Your task to perform on an android device: Open the stopwatch Image 0: 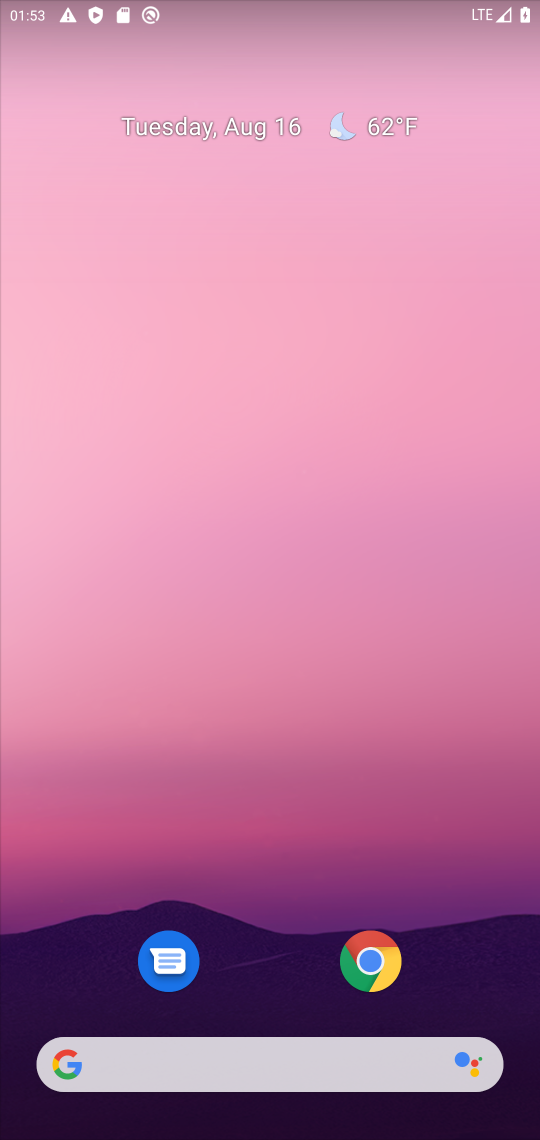
Step 0: press home button
Your task to perform on an android device: Open the stopwatch Image 1: 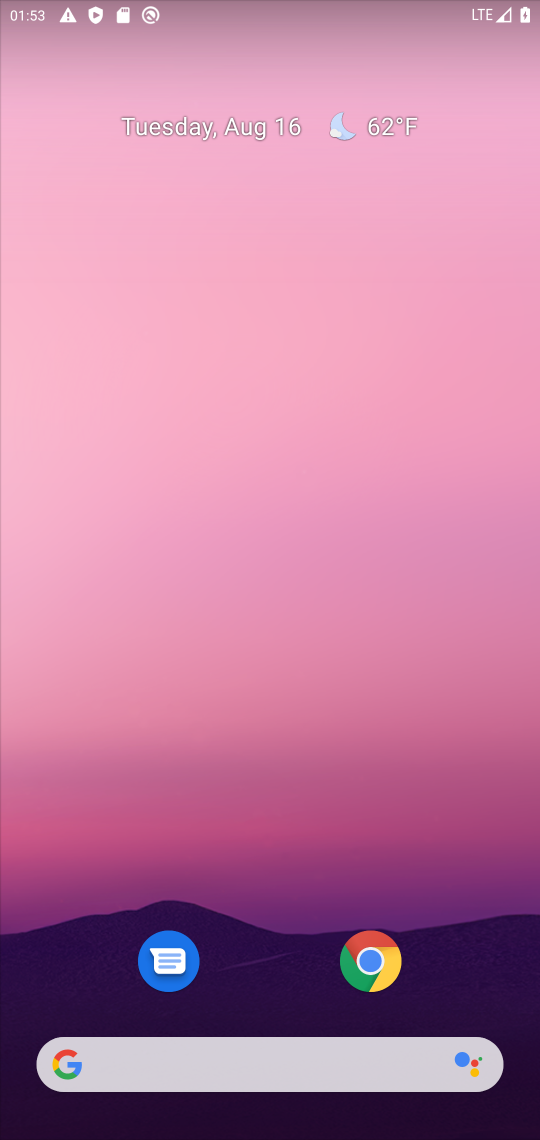
Step 1: drag from (282, 934) to (266, 88)
Your task to perform on an android device: Open the stopwatch Image 2: 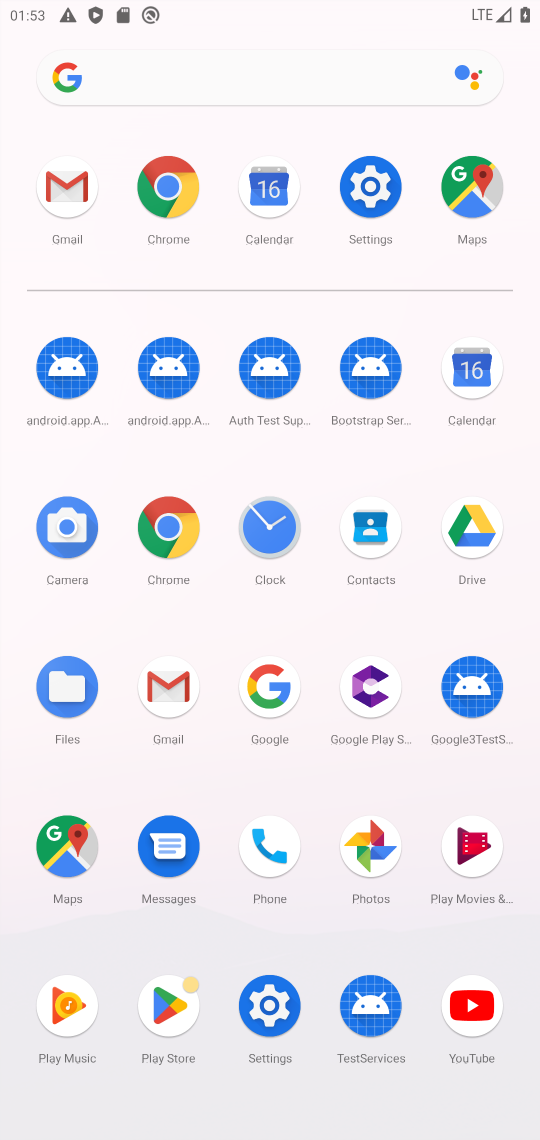
Step 2: click (257, 1013)
Your task to perform on an android device: Open the stopwatch Image 3: 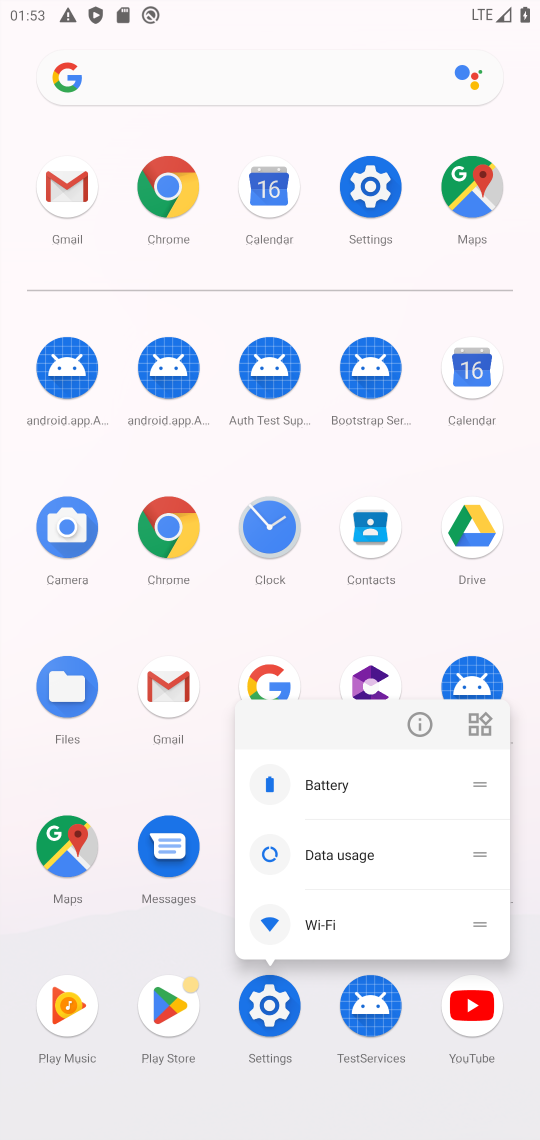
Step 3: click (257, 1013)
Your task to perform on an android device: Open the stopwatch Image 4: 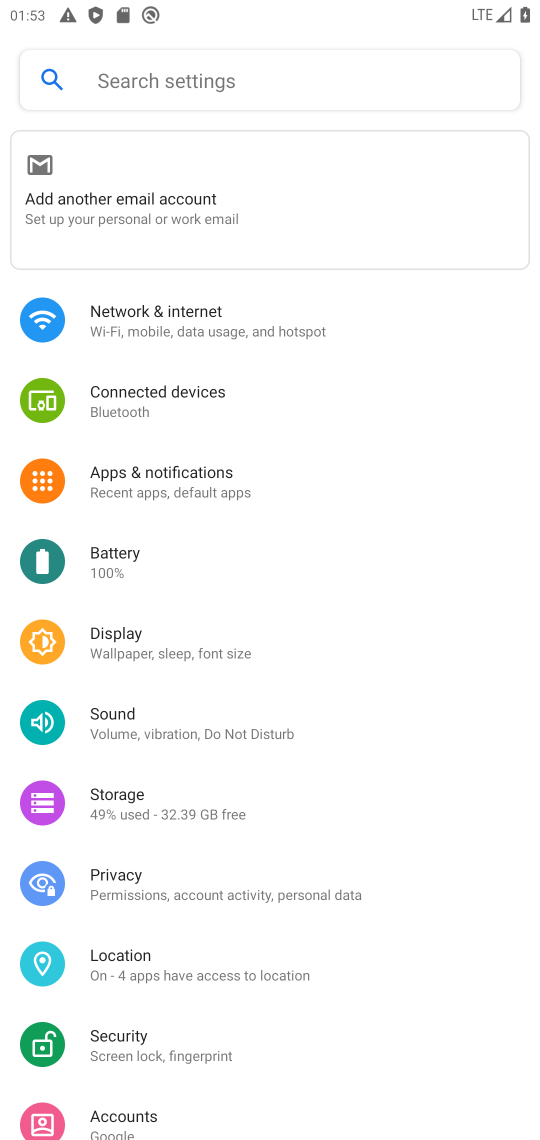
Step 4: drag from (169, 892) to (203, 316)
Your task to perform on an android device: Open the stopwatch Image 5: 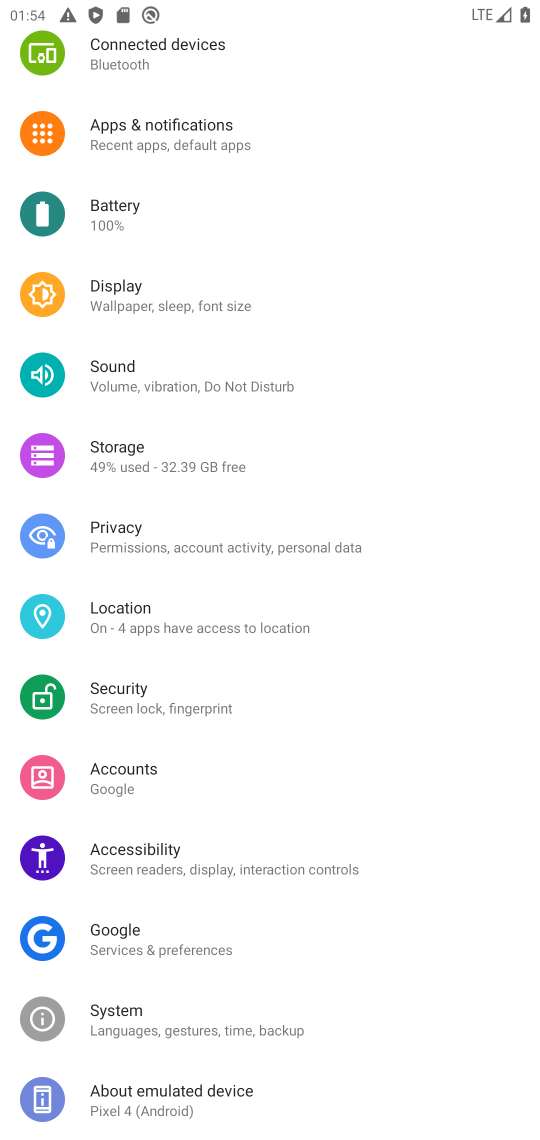
Step 5: press home button
Your task to perform on an android device: Open the stopwatch Image 6: 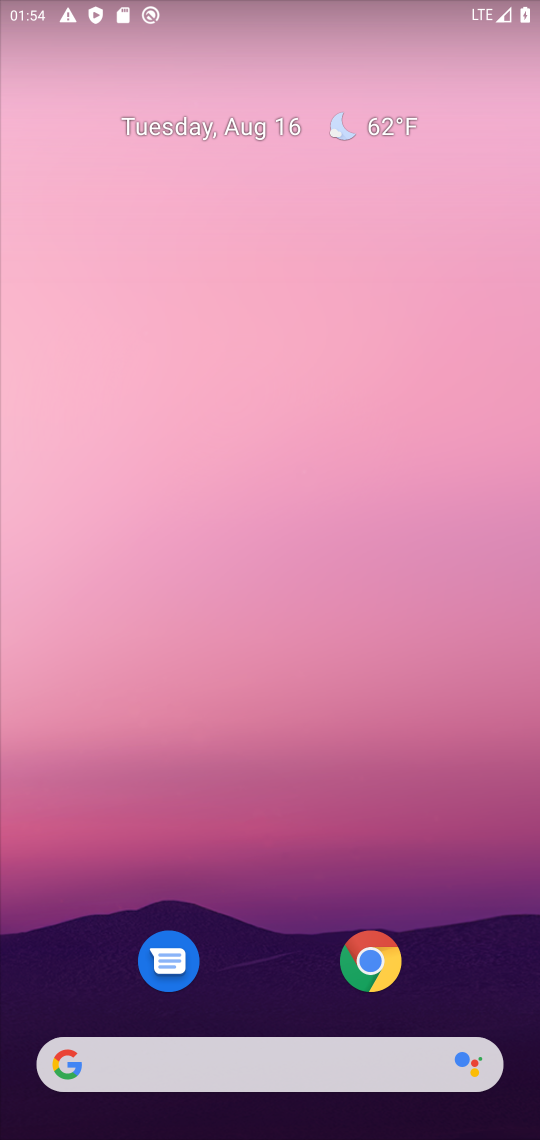
Step 6: drag from (242, 1009) to (333, 158)
Your task to perform on an android device: Open the stopwatch Image 7: 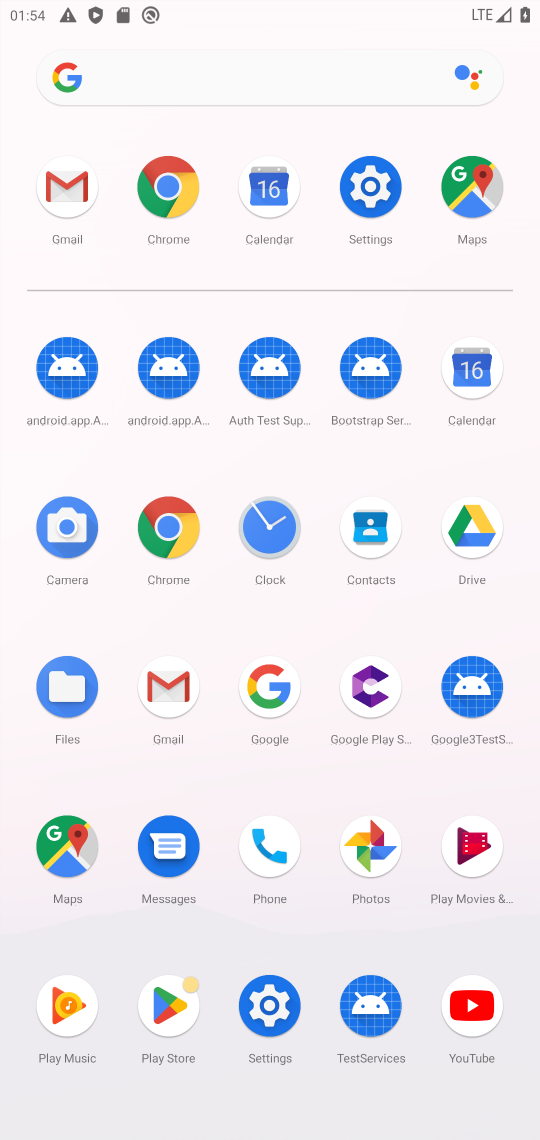
Step 7: click (286, 539)
Your task to perform on an android device: Open the stopwatch Image 8: 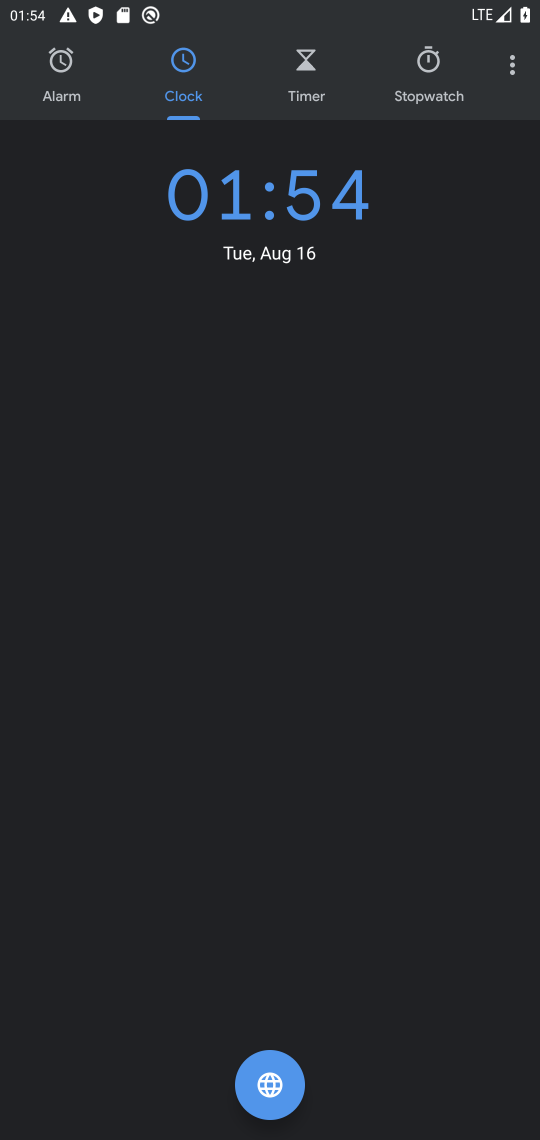
Step 8: click (458, 55)
Your task to perform on an android device: Open the stopwatch Image 9: 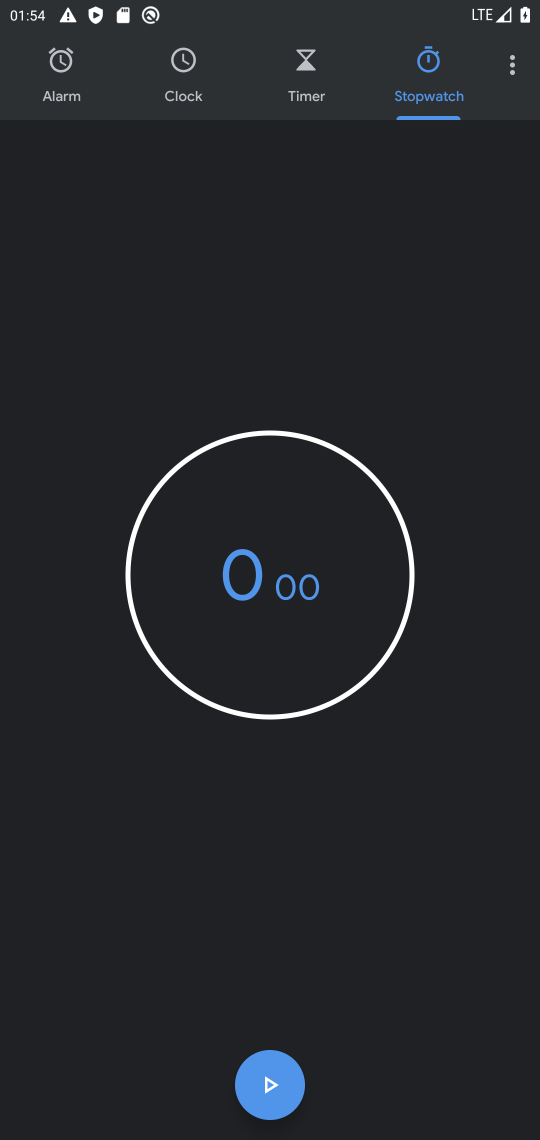
Step 9: click (278, 1109)
Your task to perform on an android device: Open the stopwatch Image 10: 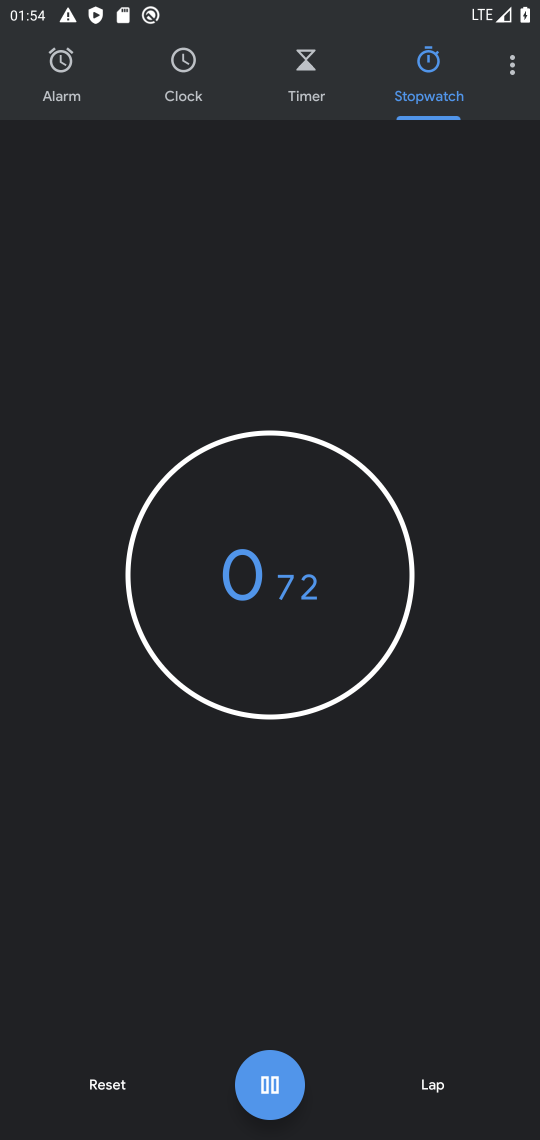
Step 10: click (278, 1109)
Your task to perform on an android device: Open the stopwatch Image 11: 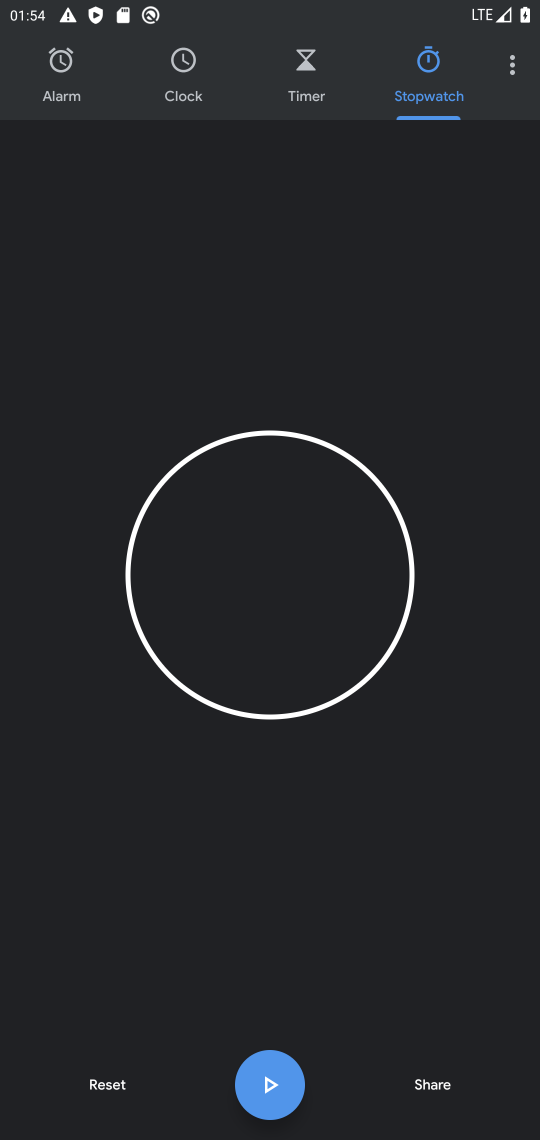
Step 11: click (98, 1072)
Your task to perform on an android device: Open the stopwatch Image 12: 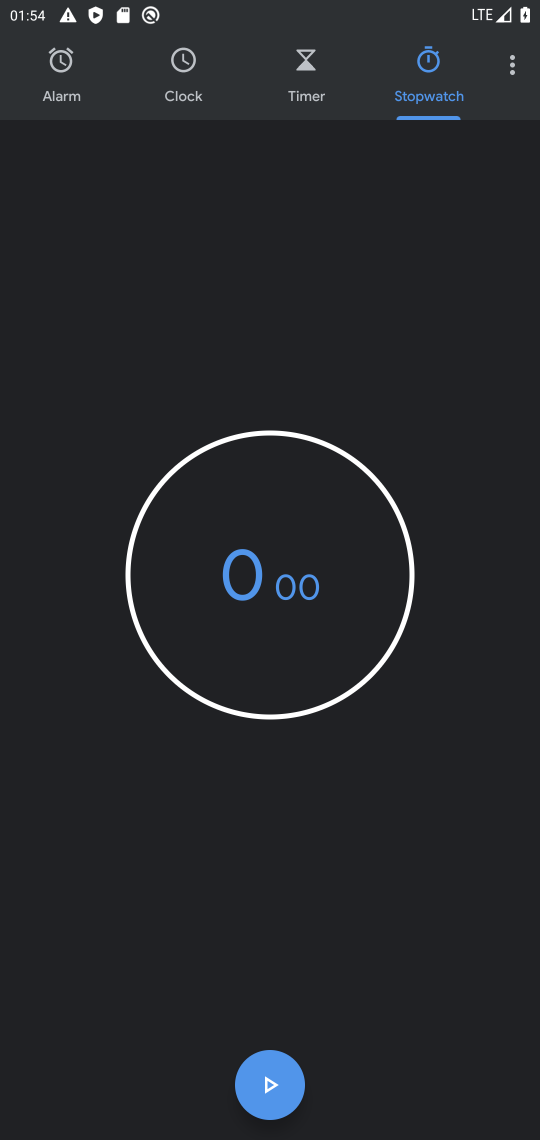
Step 12: task complete